Your task to perform on an android device: Show me recent news Image 0: 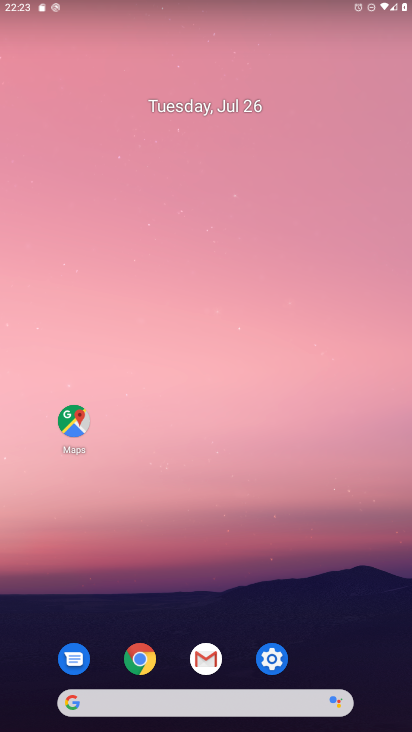
Step 0: click (166, 698)
Your task to perform on an android device: Show me recent news Image 1: 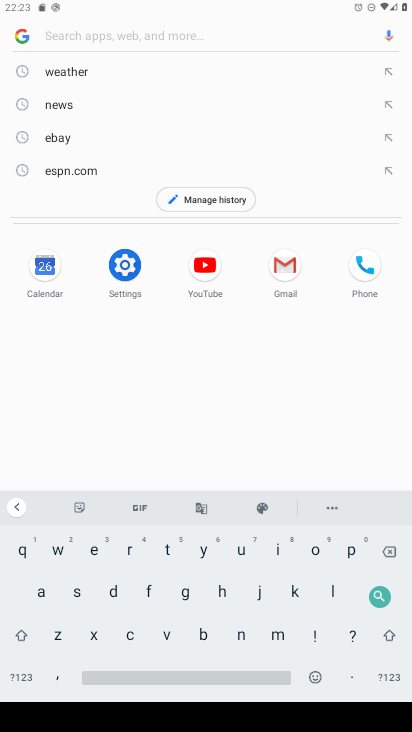
Step 1: click (124, 548)
Your task to perform on an android device: Show me recent news Image 2: 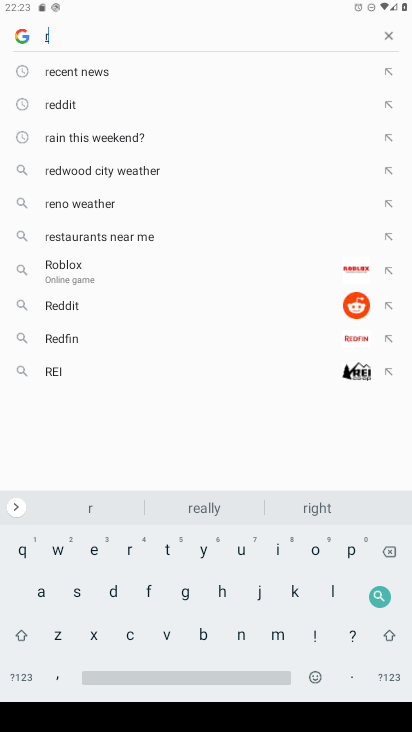
Step 2: click (89, 547)
Your task to perform on an android device: Show me recent news Image 3: 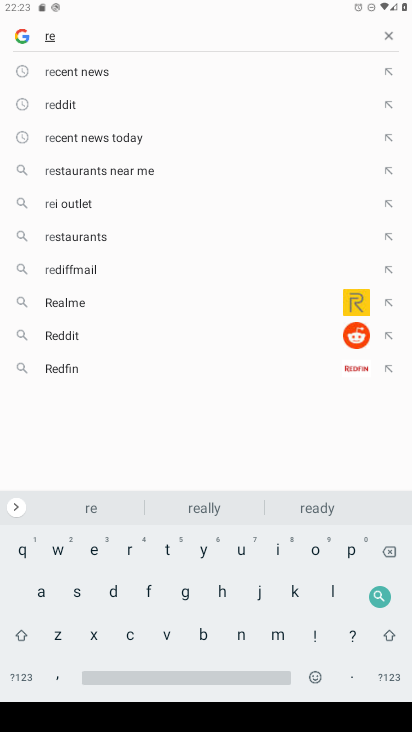
Step 3: click (83, 73)
Your task to perform on an android device: Show me recent news Image 4: 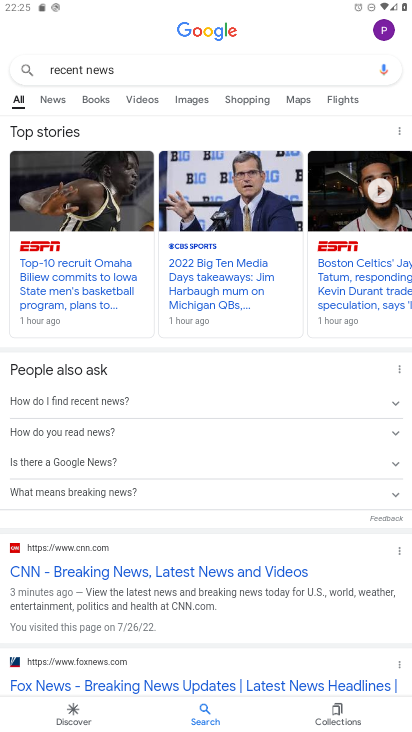
Step 4: task complete